Your task to perform on an android device: open app "Google Play services" (install if not already installed) Image 0: 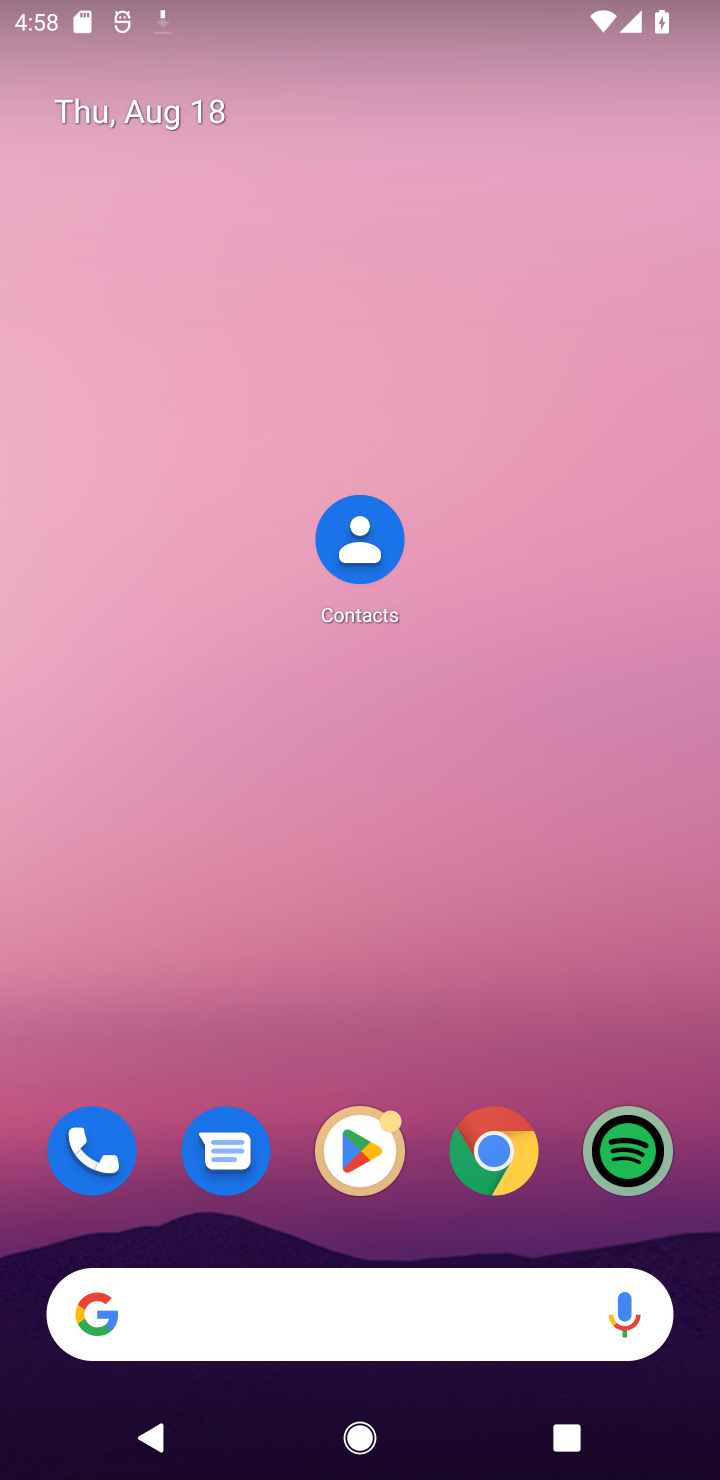
Step 0: click (335, 1133)
Your task to perform on an android device: open app "Google Play services" (install if not already installed) Image 1: 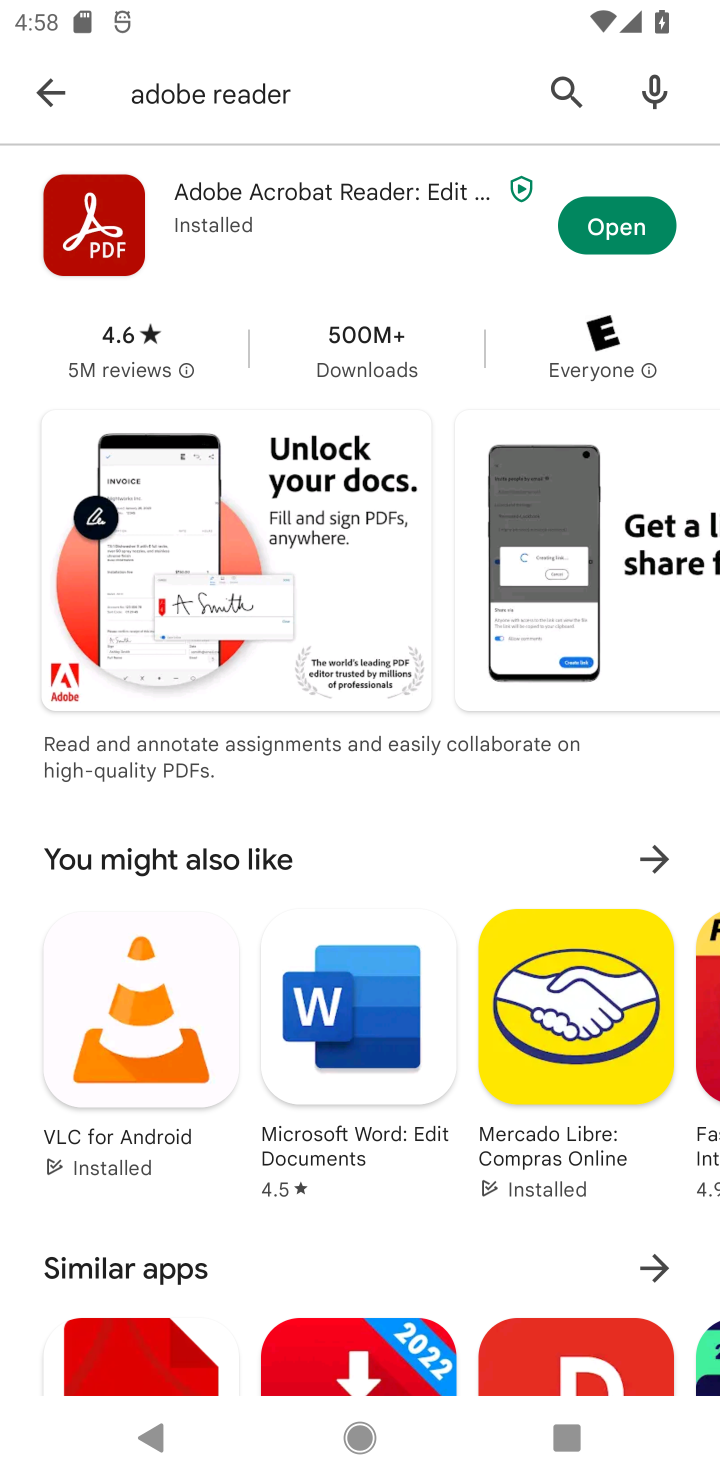
Step 1: click (589, 93)
Your task to perform on an android device: open app "Google Play services" (install if not already installed) Image 2: 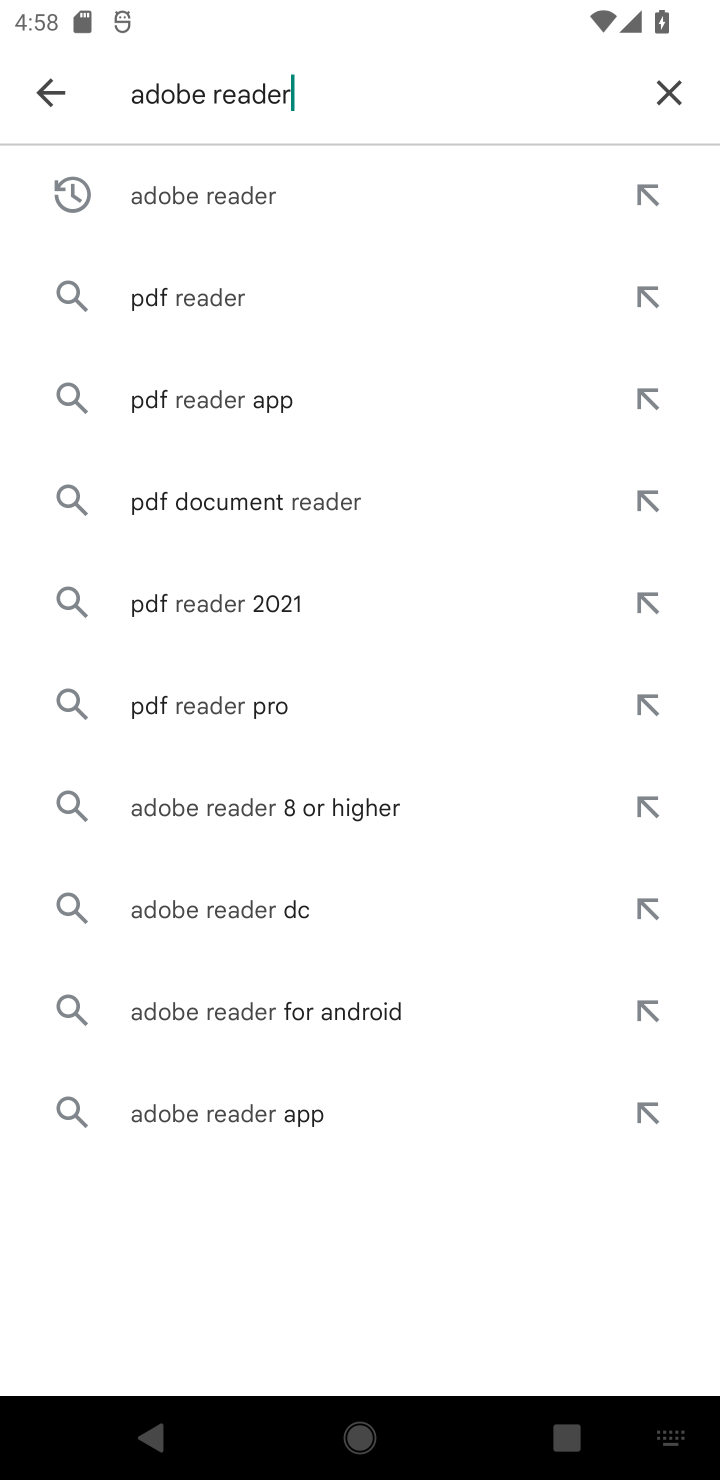
Step 2: click (670, 116)
Your task to perform on an android device: open app "Google Play services" (install if not already installed) Image 3: 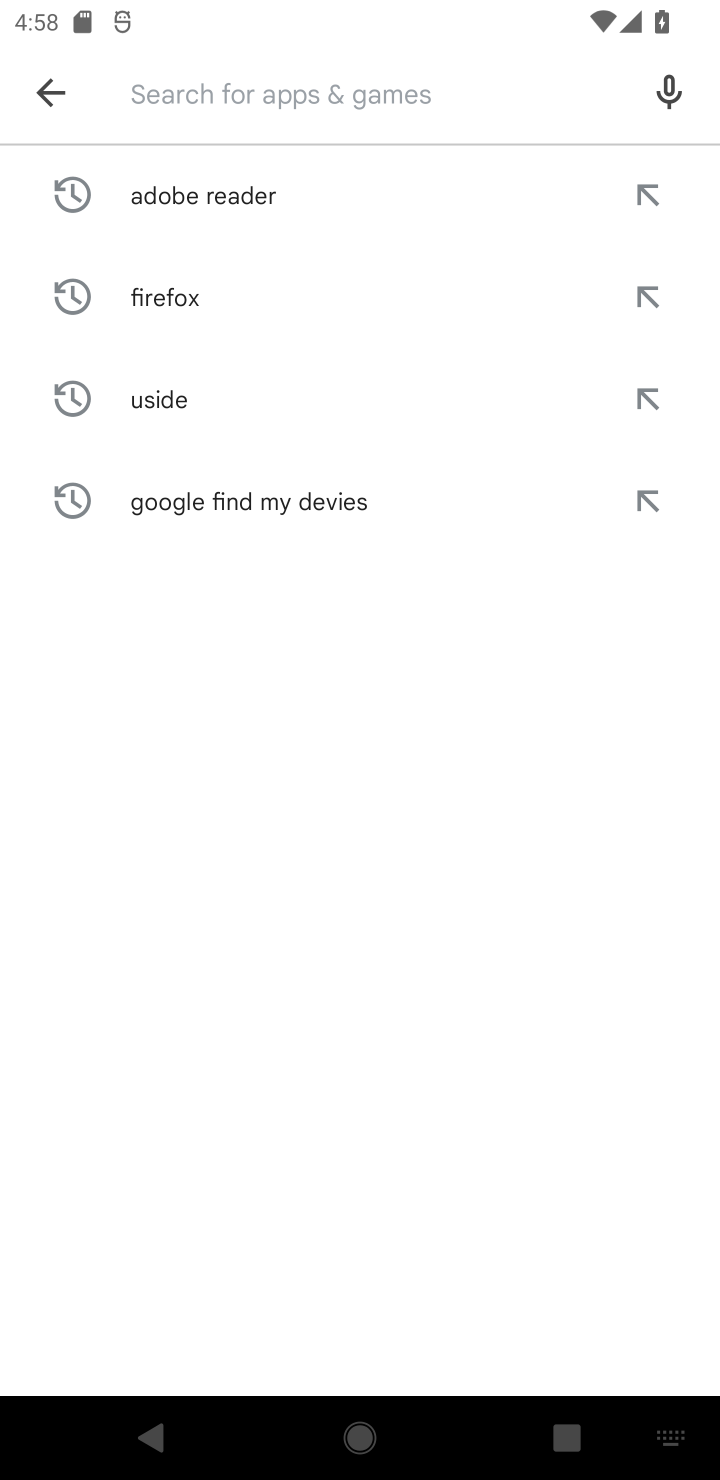
Step 3: type "duck duck go"
Your task to perform on an android device: open app "Google Play services" (install if not already installed) Image 4: 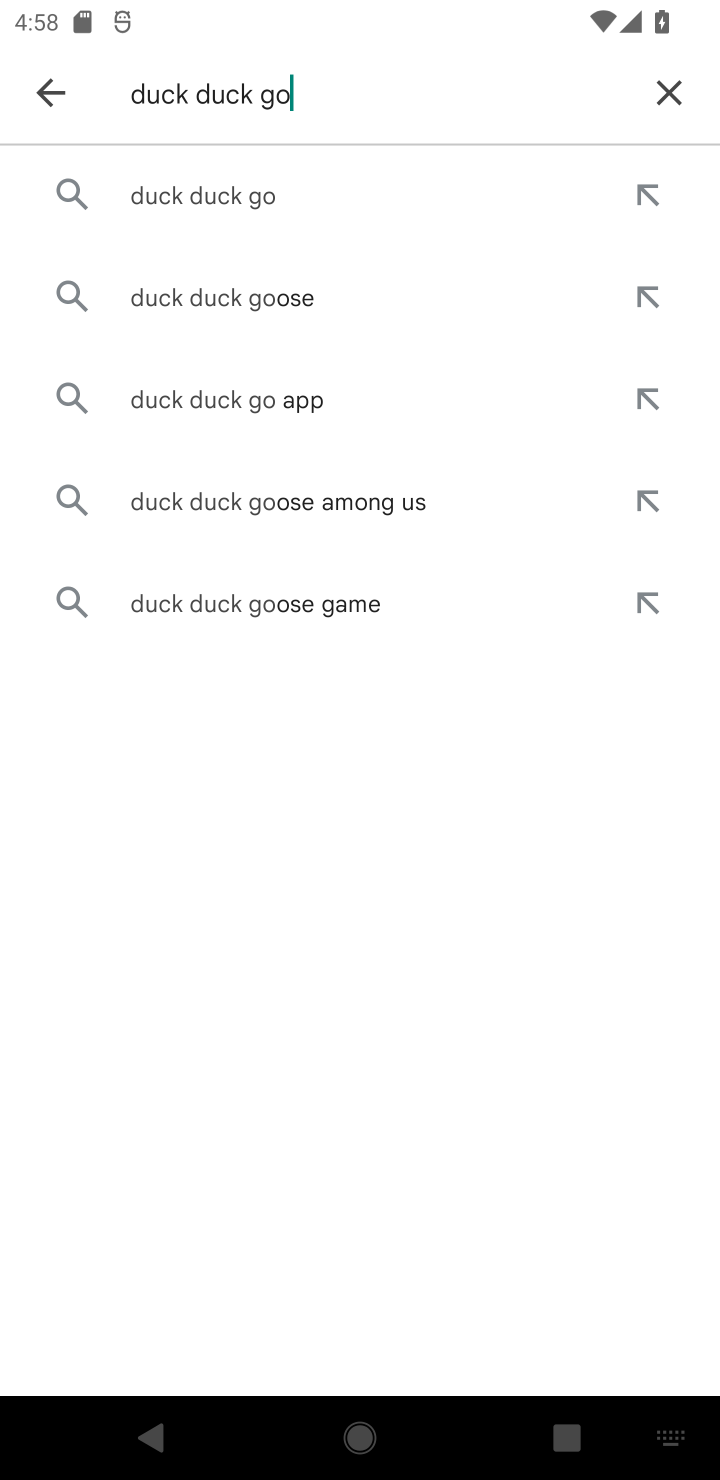
Step 4: click (289, 203)
Your task to perform on an android device: open app "Google Play services" (install if not already installed) Image 5: 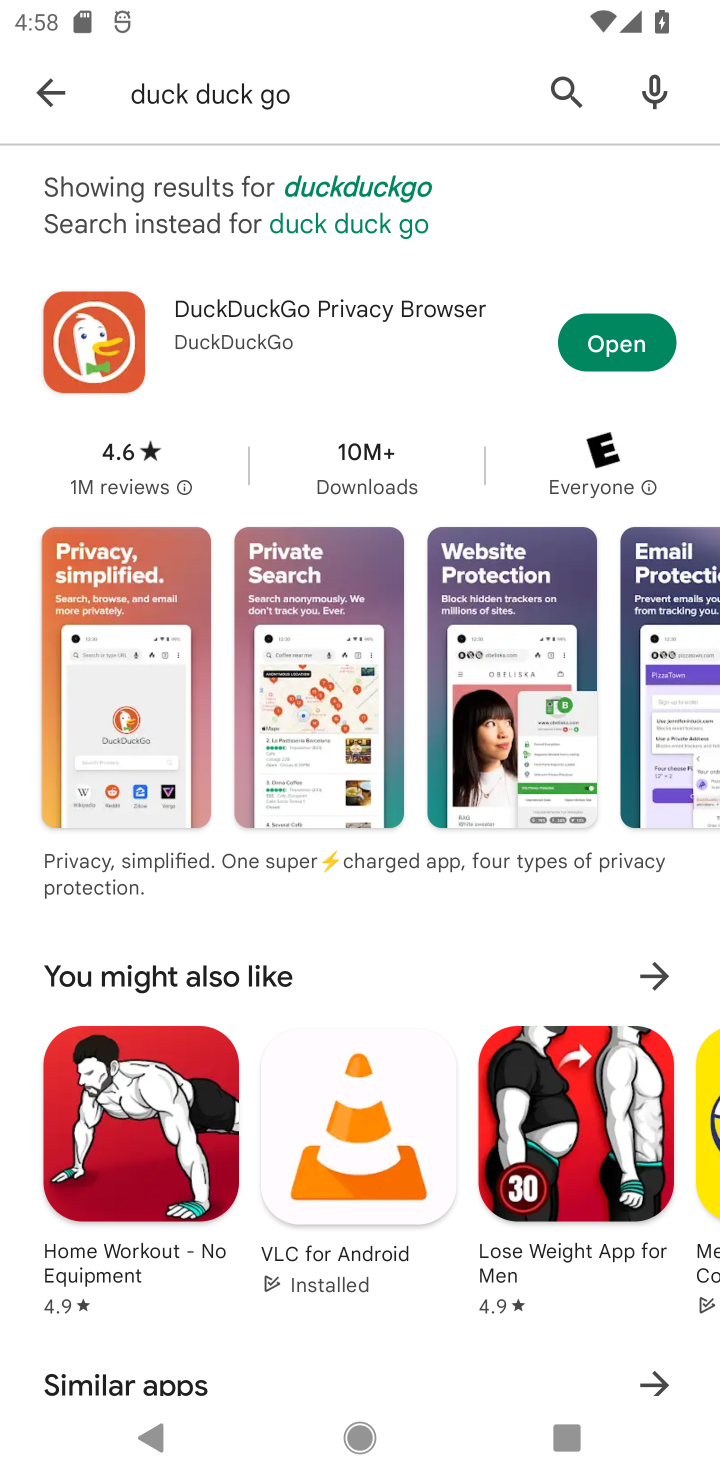
Step 5: click (563, 95)
Your task to perform on an android device: open app "Google Play services" (install if not already installed) Image 6: 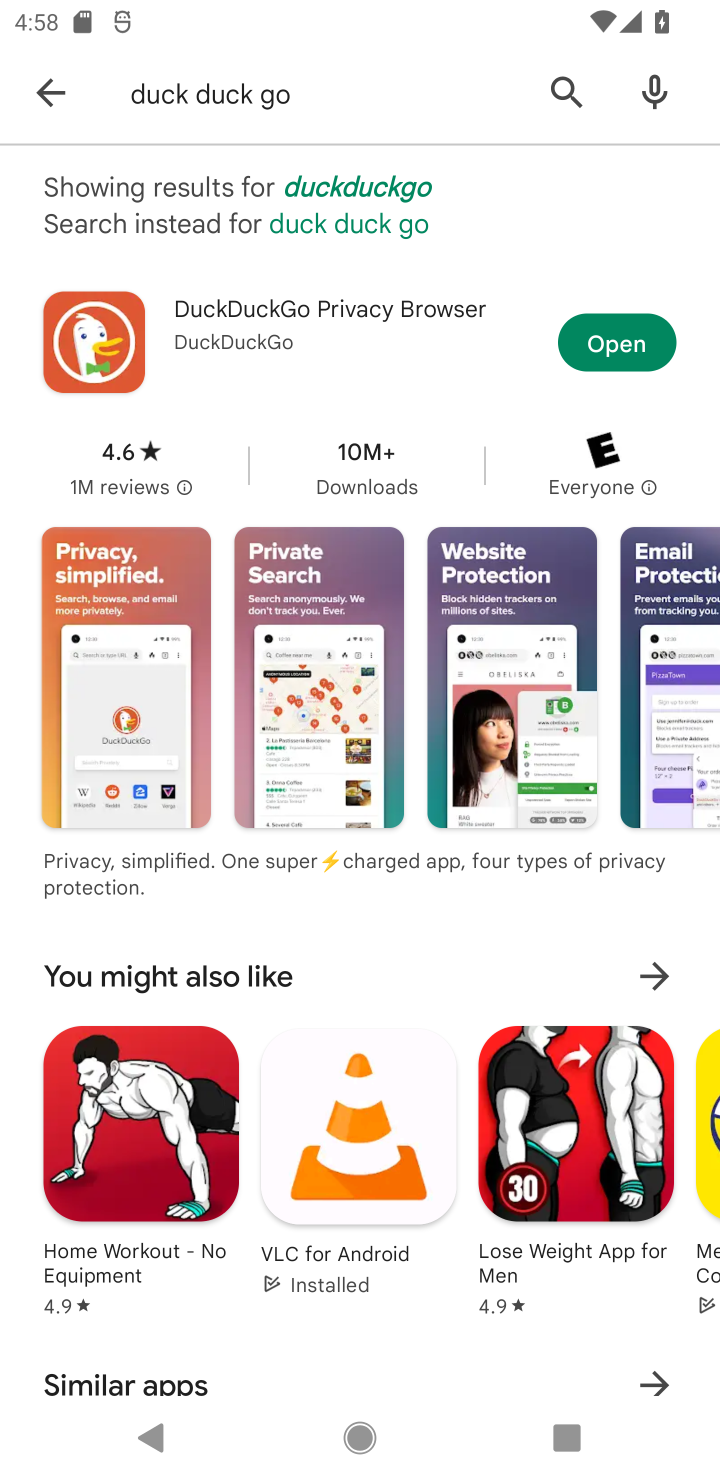
Step 6: click (680, 95)
Your task to perform on an android device: open app "Google Play services" (install if not already installed) Image 7: 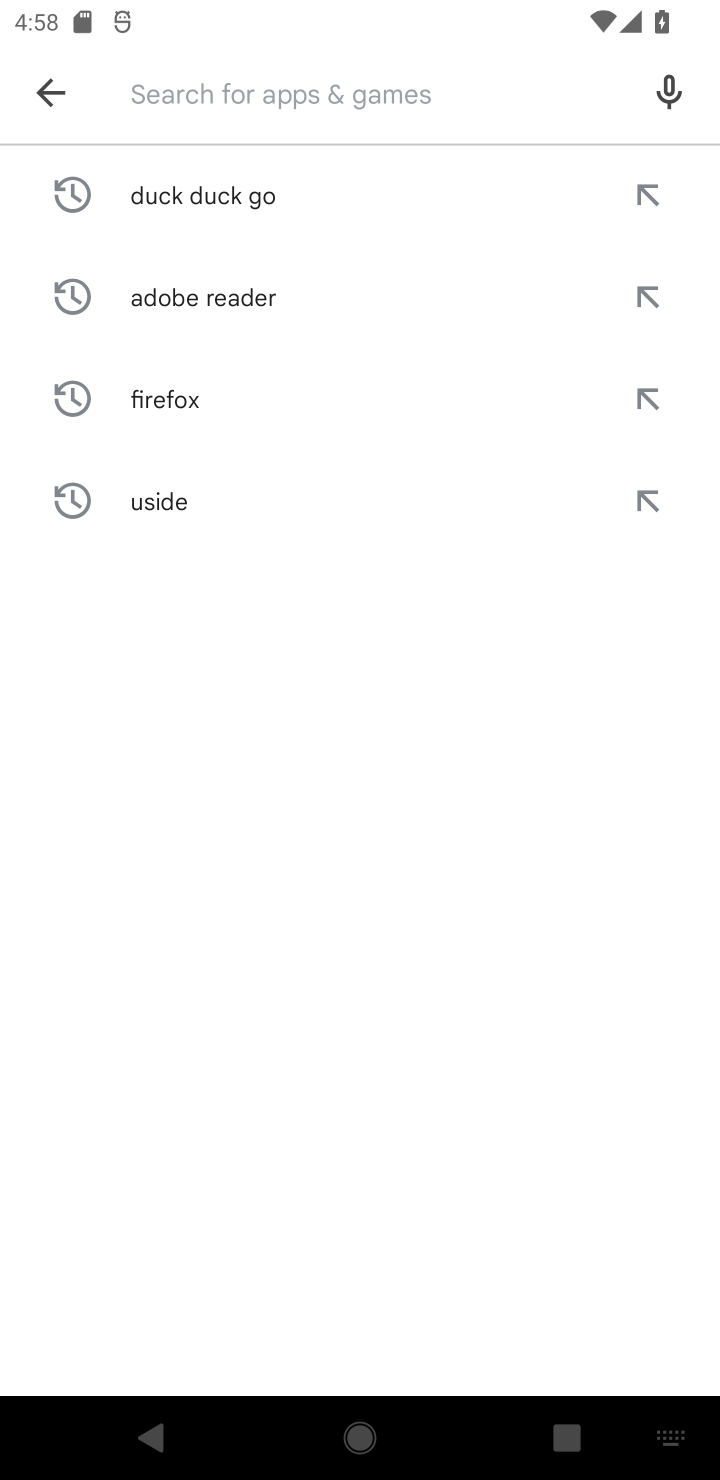
Step 7: click (680, 95)
Your task to perform on an android device: open app "Google Play services" (install if not already installed) Image 8: 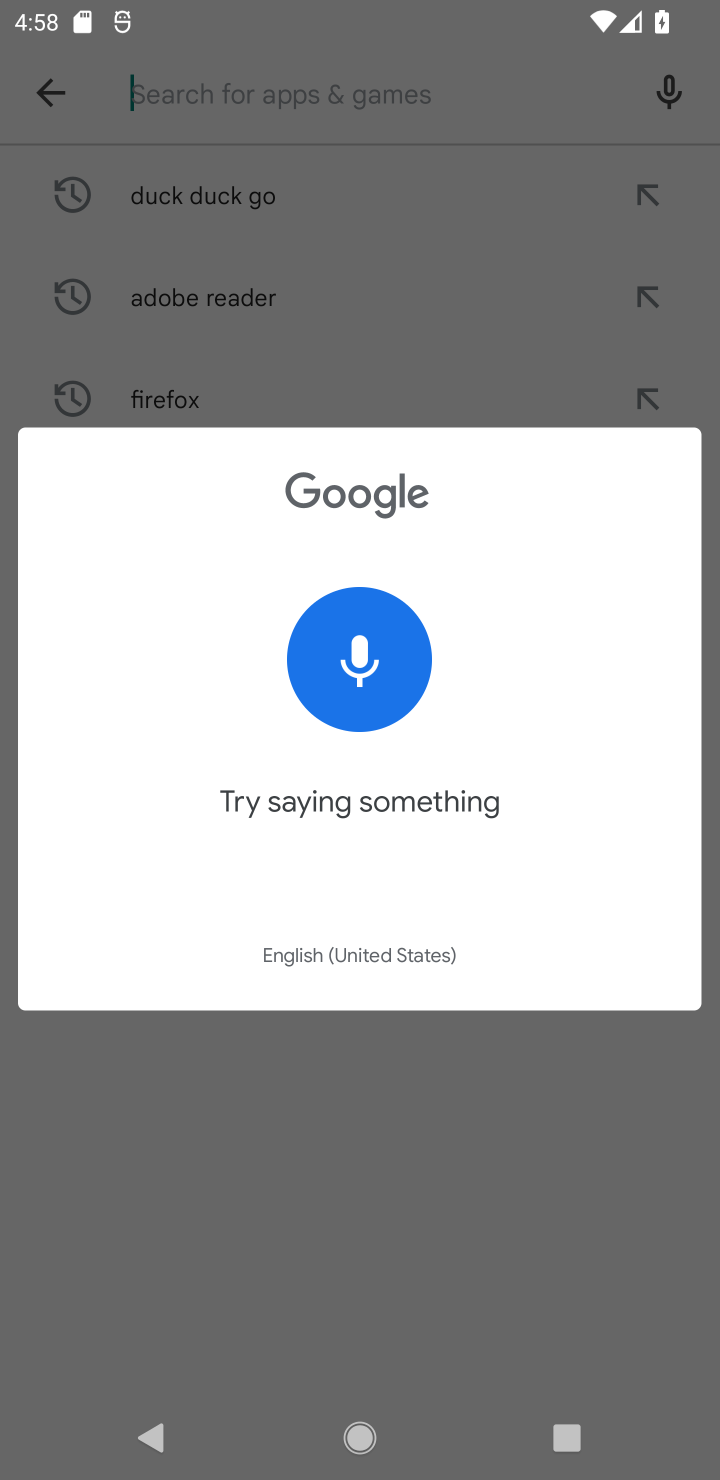
Step 8: click (34, 1076)
Your task to perform on an android device: open app "Google Play services" (install if not already installed) Image 9: 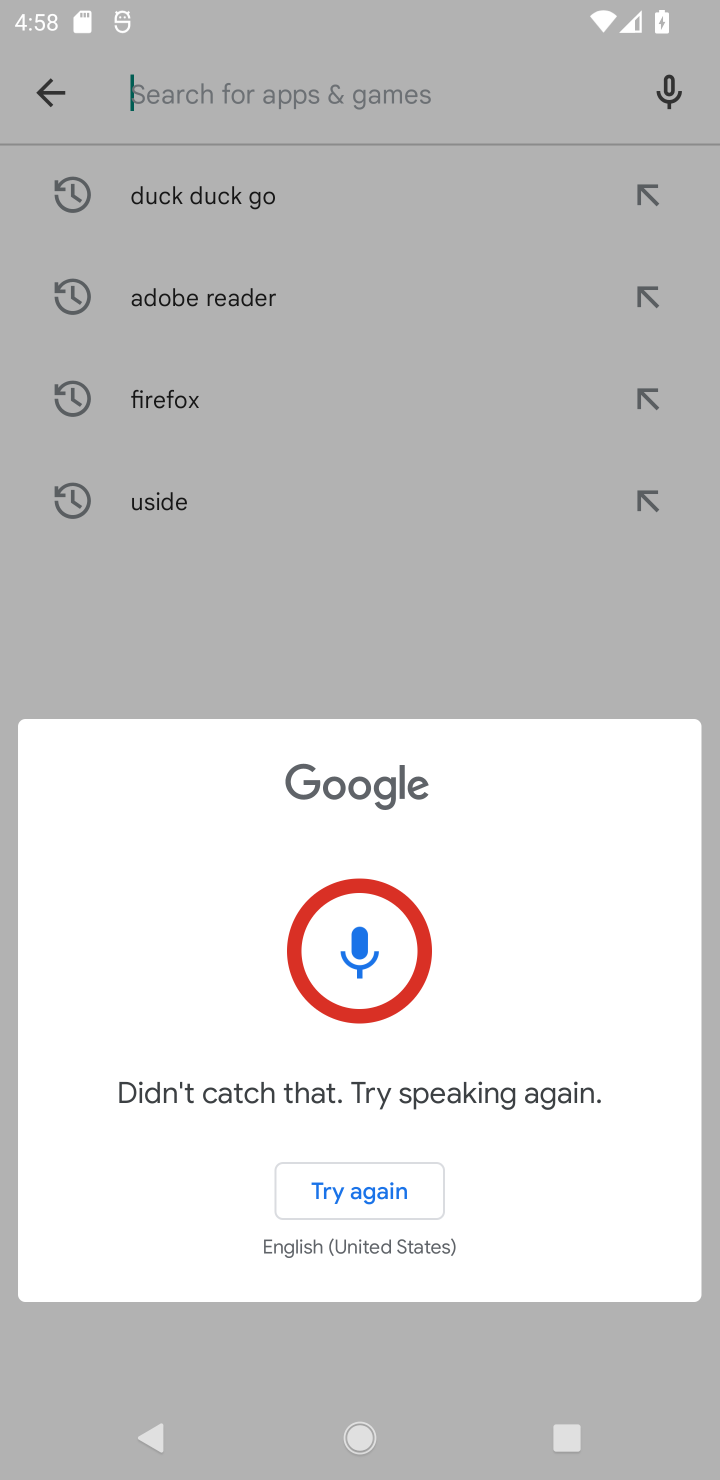
Step 9: click (95, 1131)
Your task to perform on an android device: open app "Google Play services" (install if not already installed) Image 10: 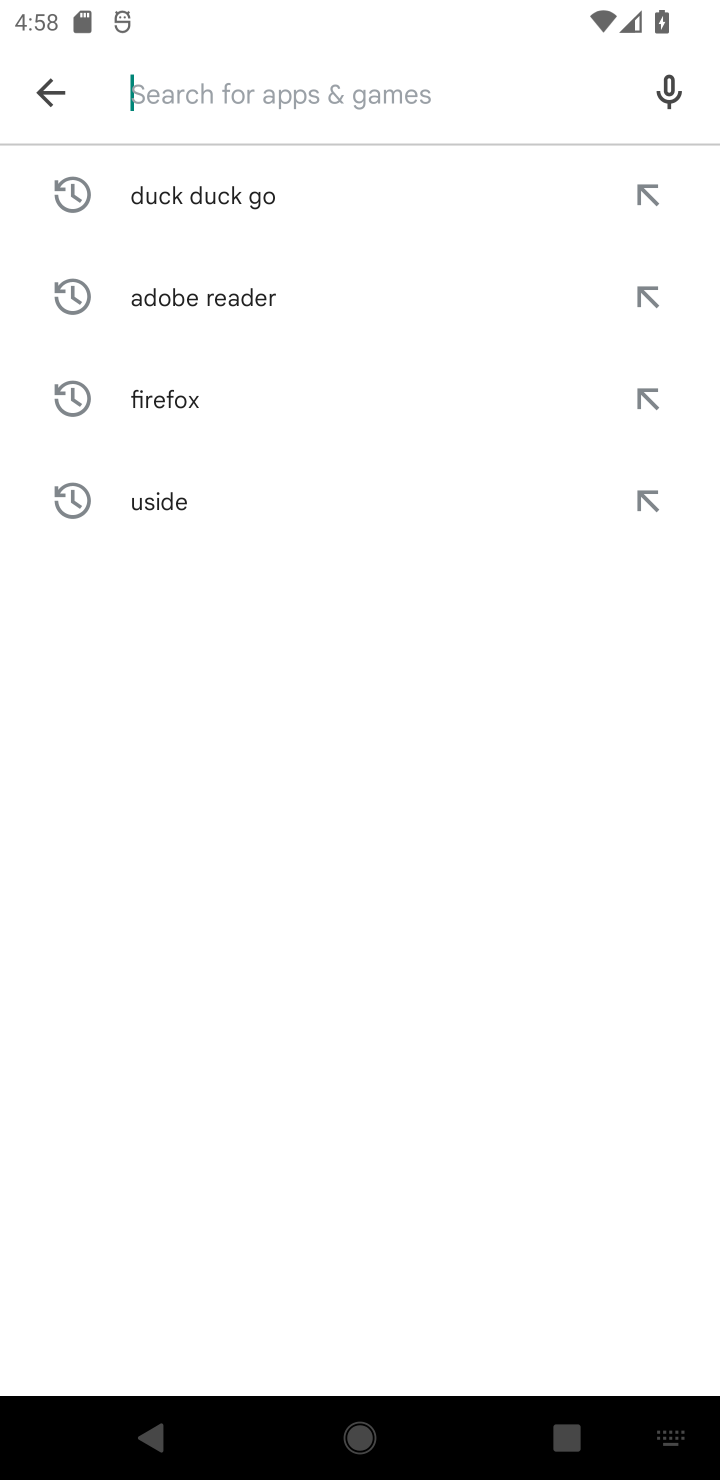
Step 10: type "goolge paly servies"
Your task to perform on an android device: open app "Google Play services" (install if not already installed) Image 11: 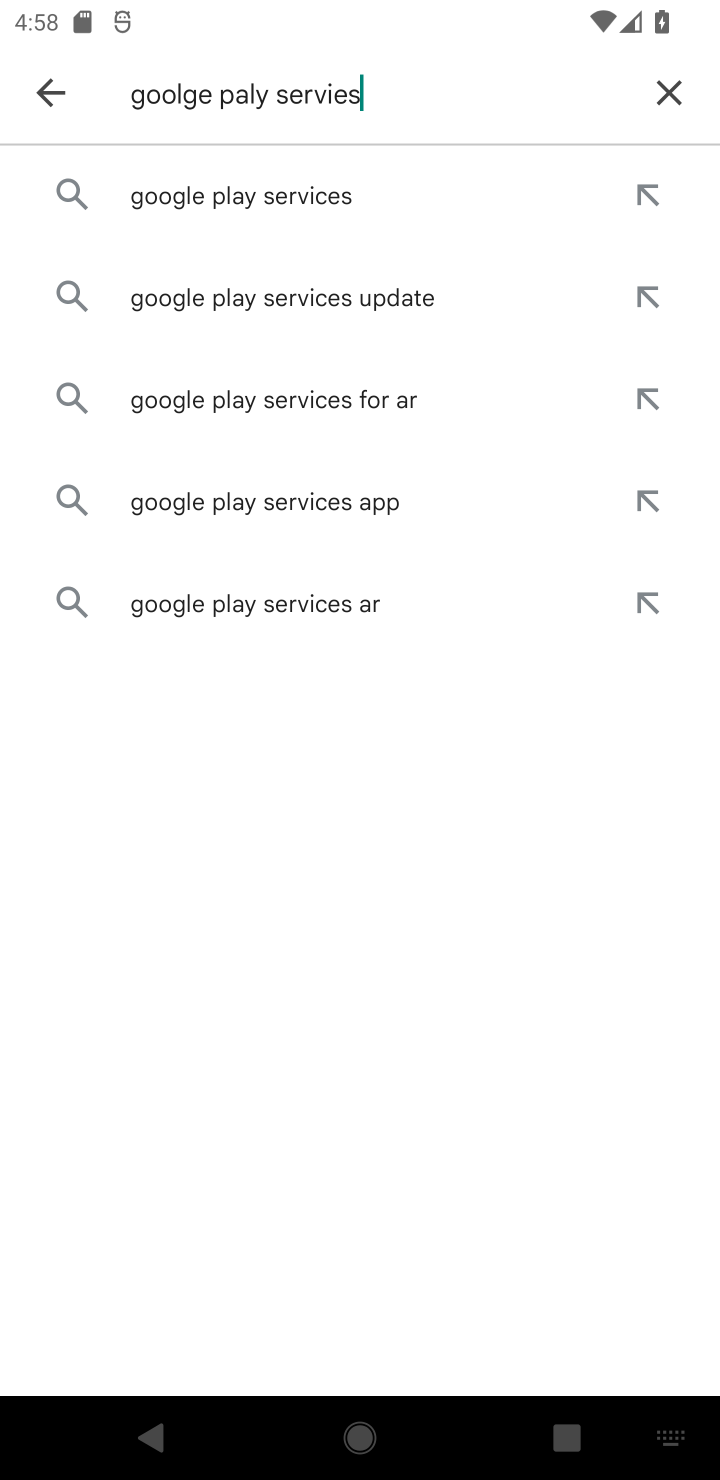
Step 11: click (236, 188)
Your task to perform on an android device: open app "Google Play services" (install if not already installed) Image 12: 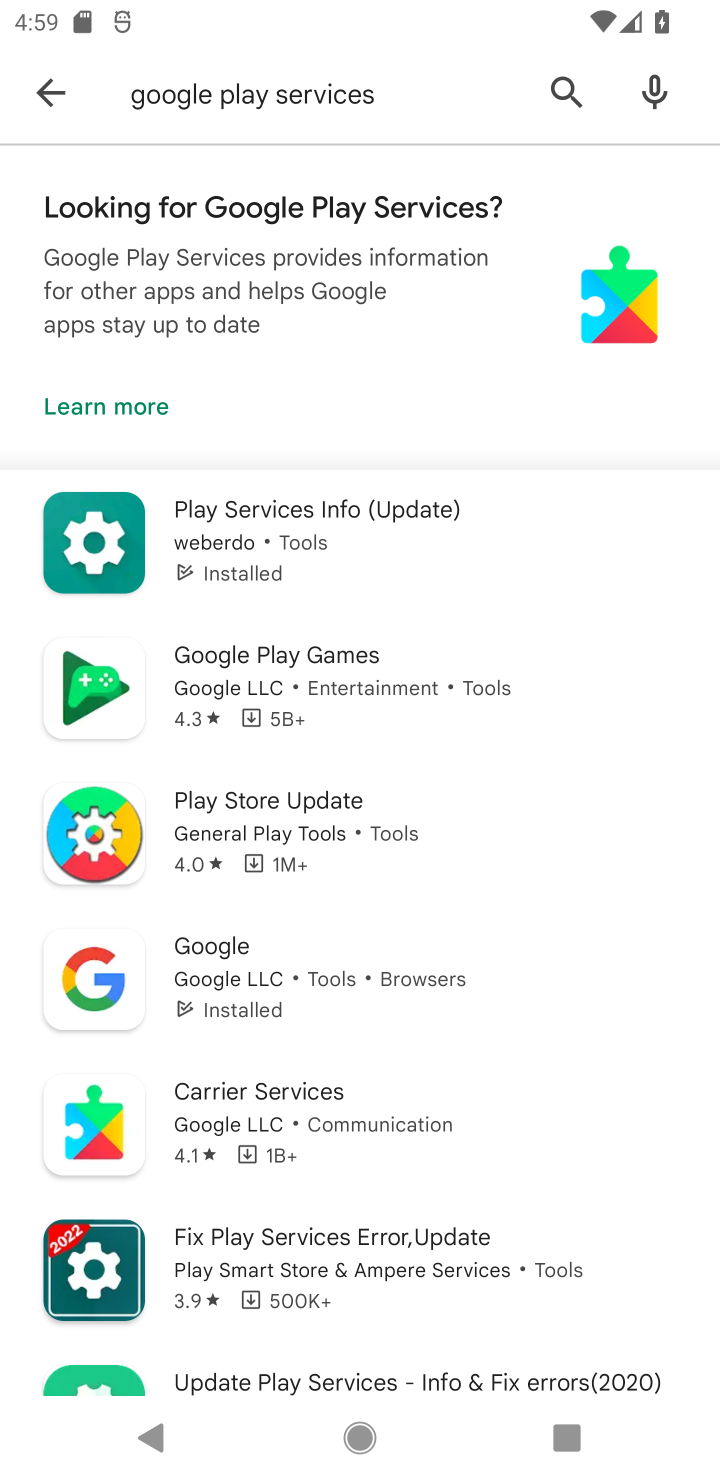
Step 12: click (342, 539)
Your task to perform on an android device: open app "Google Play services" (install if not already installed) Image 13: 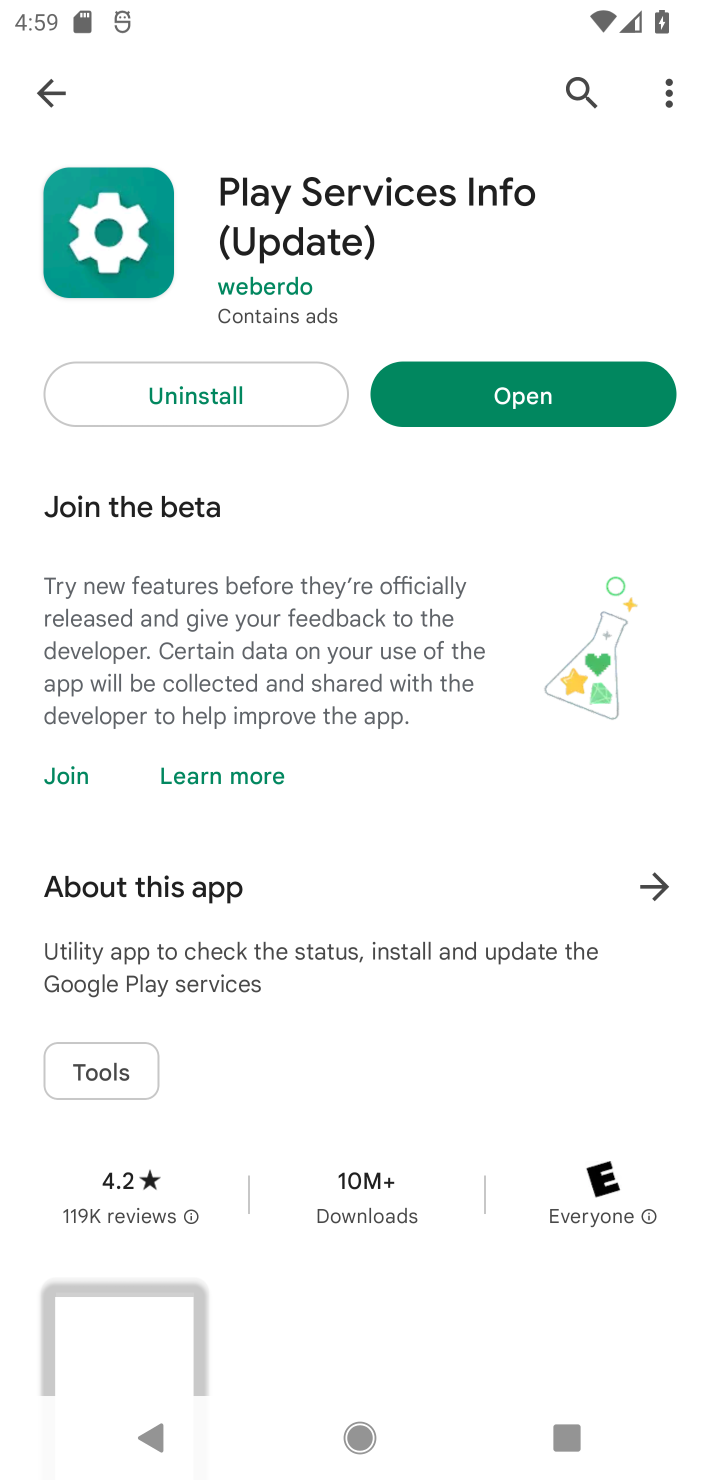
Step 13: task complete